Your task to perform on an android device: turn off wifi Image 0: 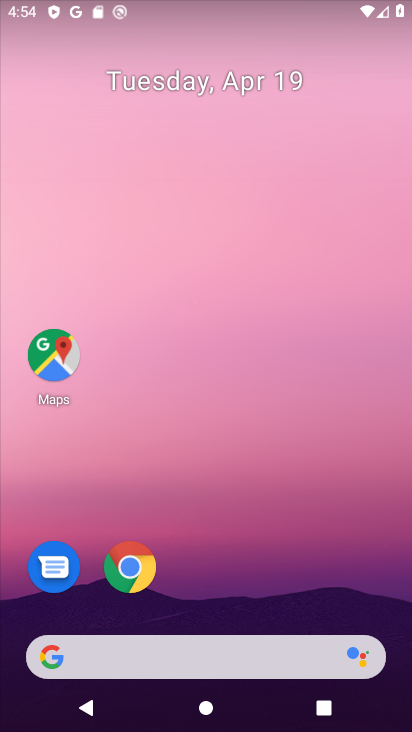
Step 0: drag from (324, 612) to (318, 11)
Your task to perform on an android device: turn off wifi Image 1: 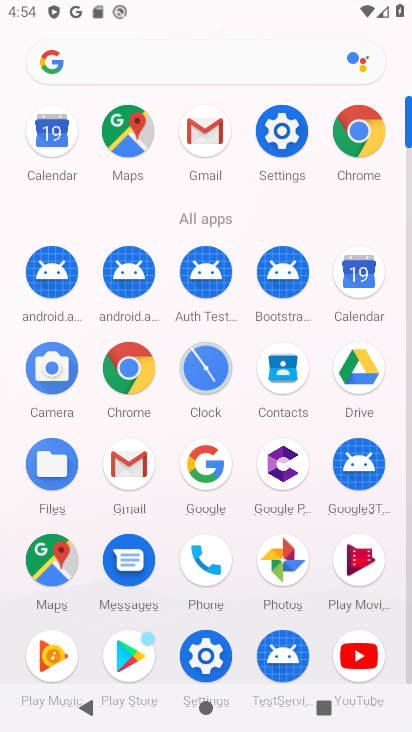
Step 1: click (214, 650)
Your task to perform on an android device: turn off wifi Image 2: 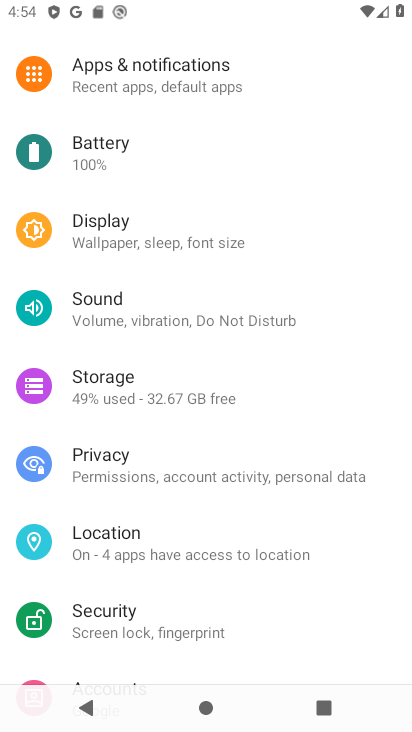
Step 2: drag from (358, 178) to (322, 597)
Your task to perform on an android device: turn off wifi Image 3: 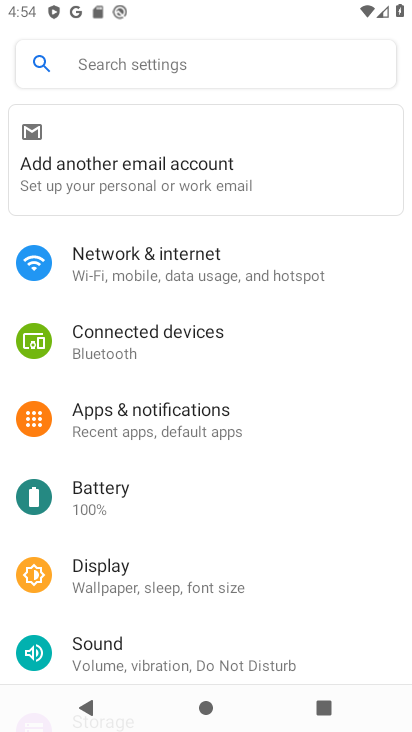
Step 3: click (249, 258)
Your task to perform on an android device: turn off wifi Image 4: 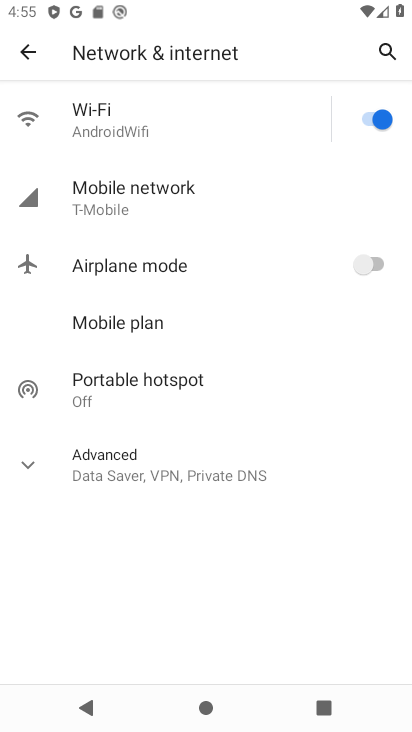
Step 4: click (367, 117)
Your task to perform on an android device: turn off wifi Image 5: 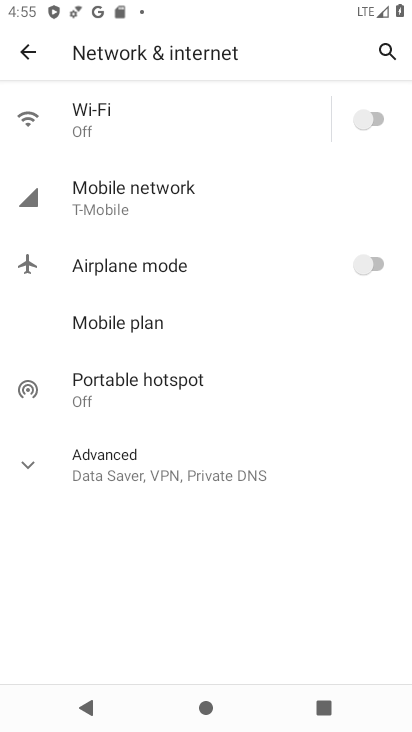
Step 5: task complete